Your task to perform on an android device: Search for pizza restaurants on Maps Image 0: 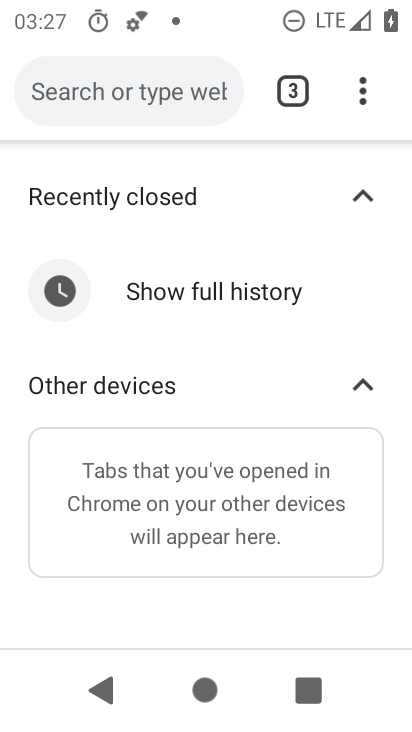
Step 0: press home button
Your task to perform on an android device: Search for pizza restaurants on Maps Image 1: 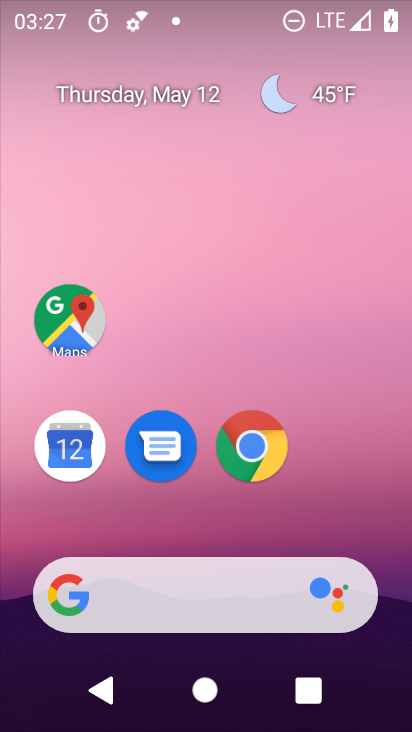
Step 1: click (88, 345)
Your task to perform on an android device: Search for pizza restaurants on Maps Image 2: 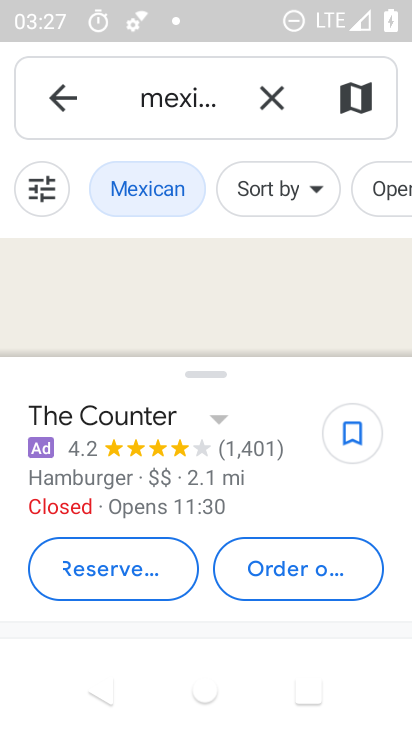
Step 2: click (265, 107)
Your task to perform on an android device: Search for pizza restaurants on Maps Image 3: 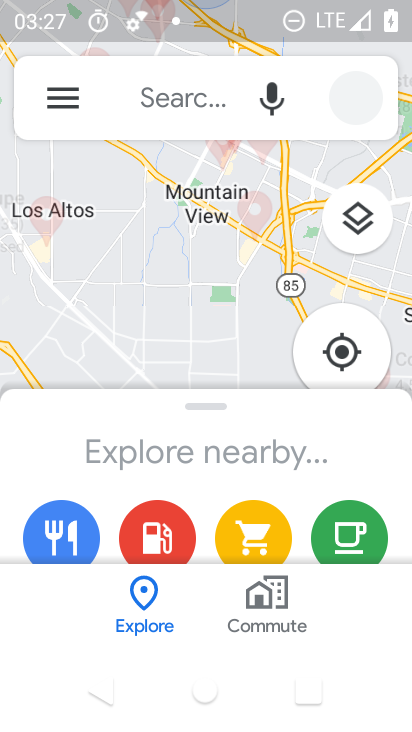
Step 3: click (167, 108)
Your task to perform on an android device: Search for pizza restaurants on Maps Image 4: 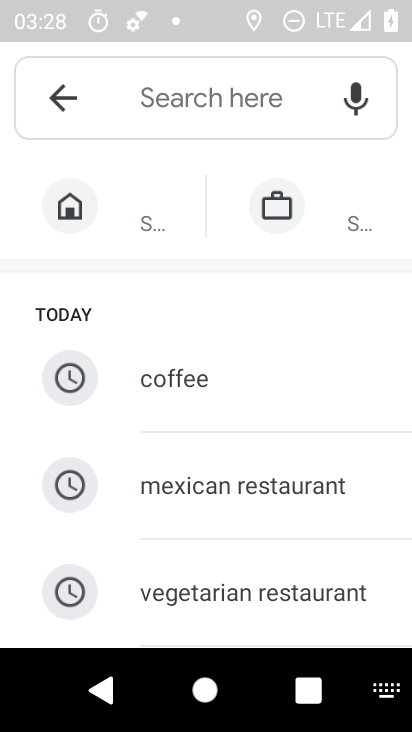
Step 4: type "pizza restaurants"
Your task to perform on an android device: Search for pizza restaurants on Maps Image 5: 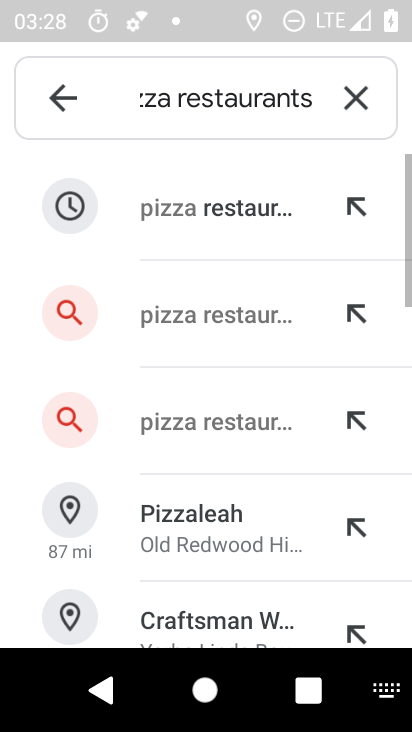
Step 5: click (212, 220)
Your task to perform on an android device: Search for pizza restaurants on Maps Image 6: 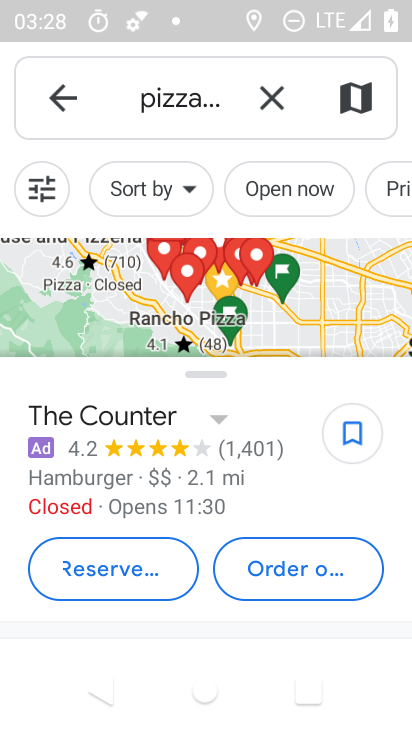
Step 6: task complete